Your task to perform on an android device: create a new album in the google photos Image 0: 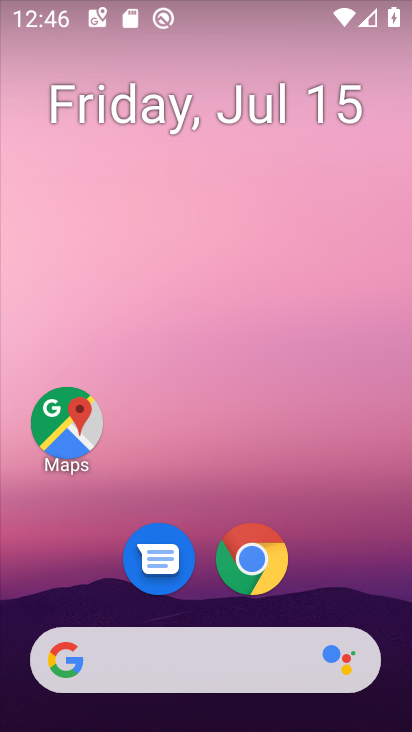
Step 0: drag from (361, 596) to (362, 135)
Your task to perform on an android device: create a new album in the google photos Image 1: 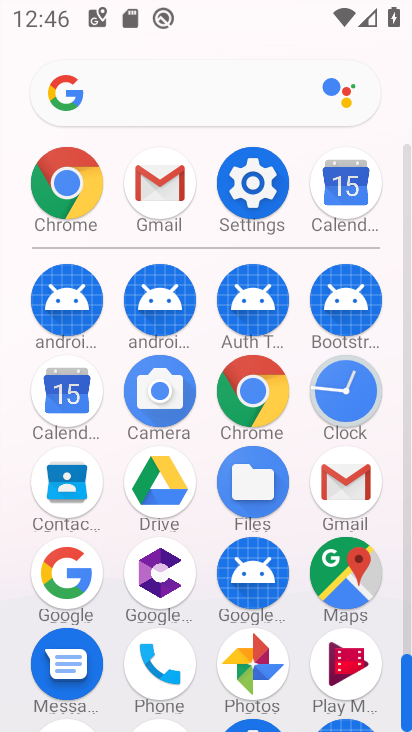
Step 1: click (253, 661)
Your task to perform on an android device: create a new album in the google photos Image 2: 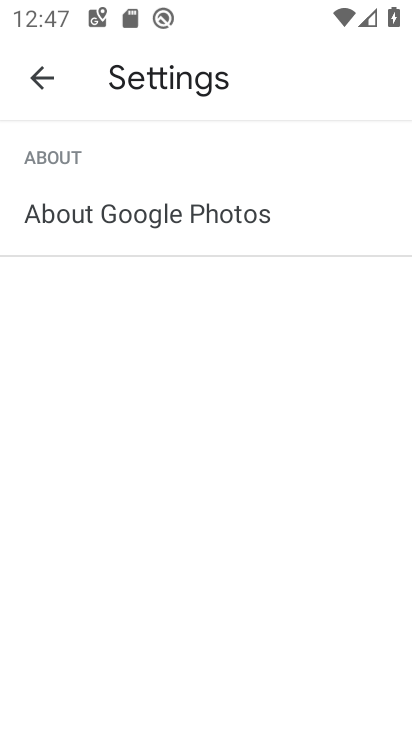
Step 2: press back button
Your task to perform on an android device: create a new album in the google photos Image 3: 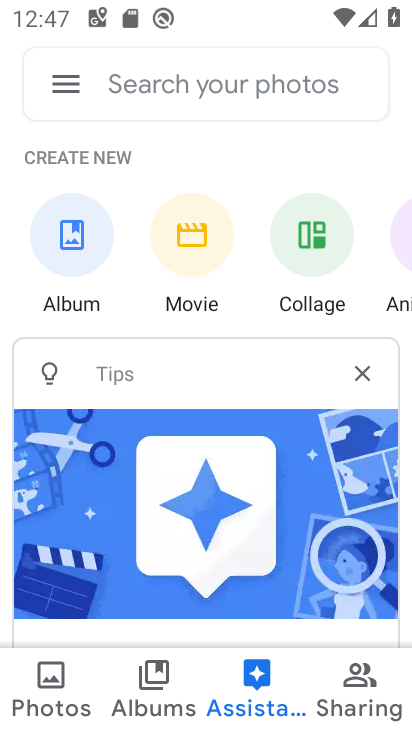
Step 3: click (143, 683)
Your task to perform on an android device: create a new album in the google photos Image 4: 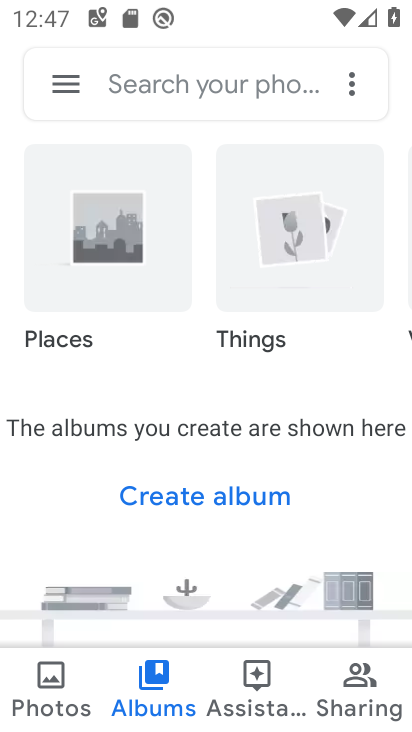
Step 4: click (222, 494)
Your task to perform on an android device: create a new album in the google photos Image 5: 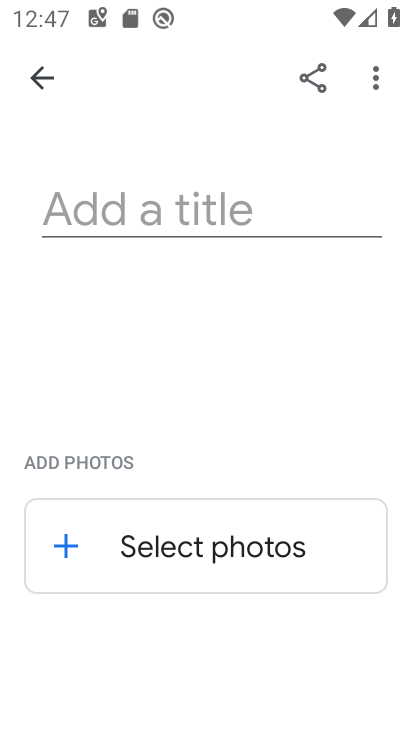
Step 5: click (265, 225)
Your task to perform on an android device: create a new album in the google photos Image 6: 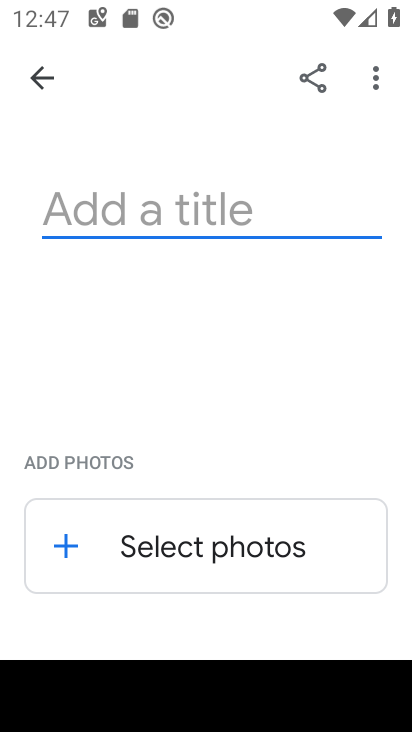
Step 6: type "fav"
Your task to perform on an android device: create a new album in the google photos Image 7: 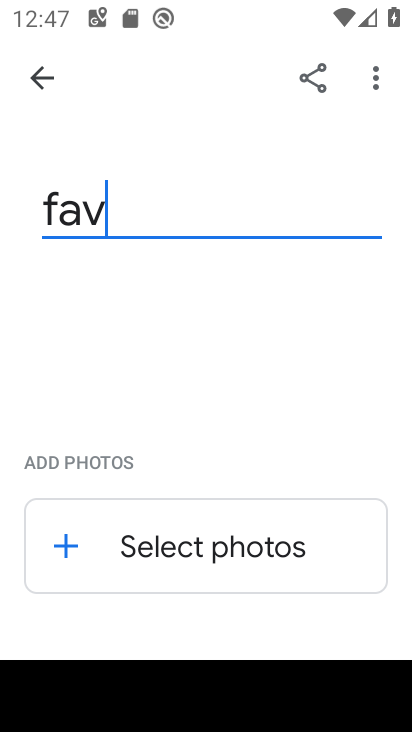
Step 7: click (281, 547)
Your task to perform on an android device: create a new album in the google photos Image 8: 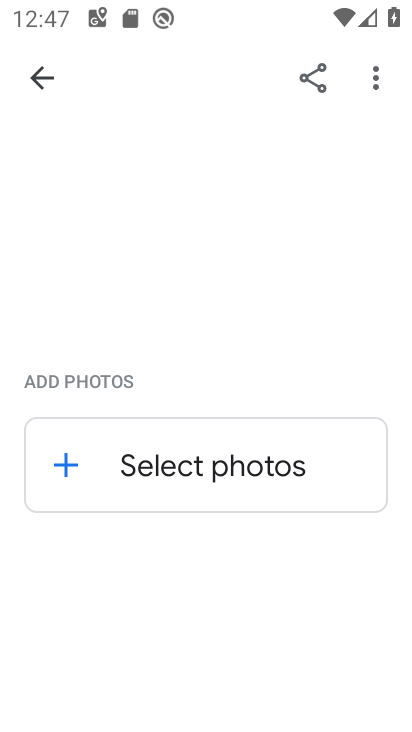
Step 8: click (82, 479)
Your task to perform on an android device: create a new album in the google photos Image 9: 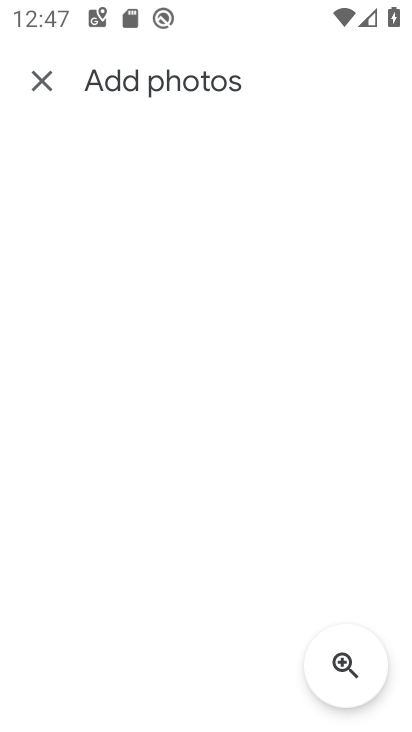
Step 9: task complete